Your task to perform on an android device: change the clock display to digital Image 0: 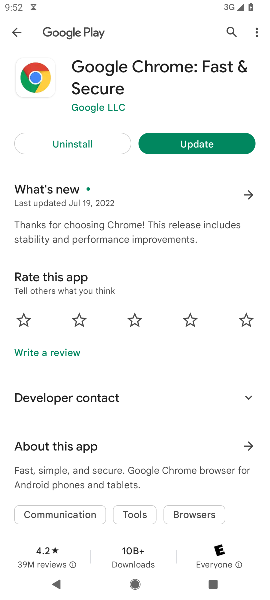
Step 0: press home button
Your task to perform on an android device: change the clock display to digital Image 1: 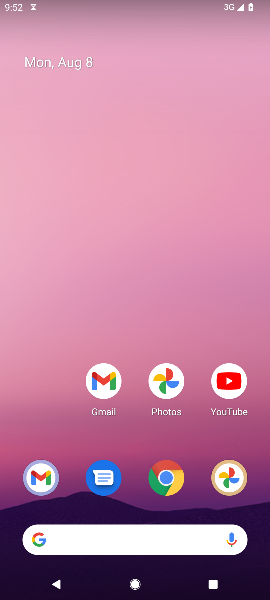
Step 1: drag from (136, 544) to (172, 280)
Your task to perform on an android device: change the clock display to digital Image 2: 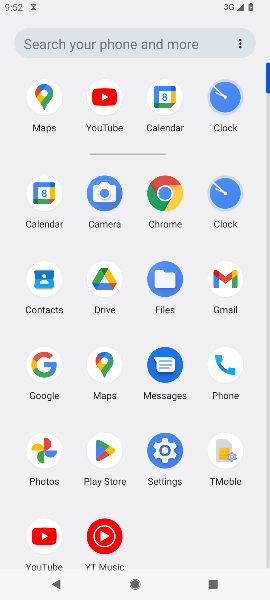
Step 2: click (221, 197)
Your task to perform on an android device: change the clock display to digital Image 3: 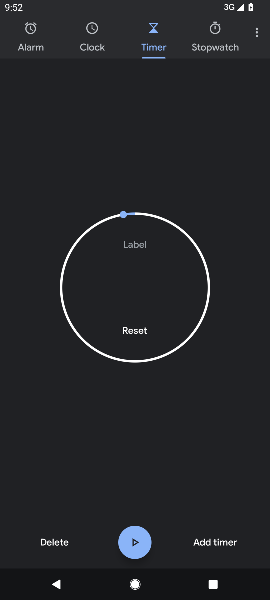
Step 3: click (257, 33)
Your task to perform on an android device: change the clock display to digital Image 4: 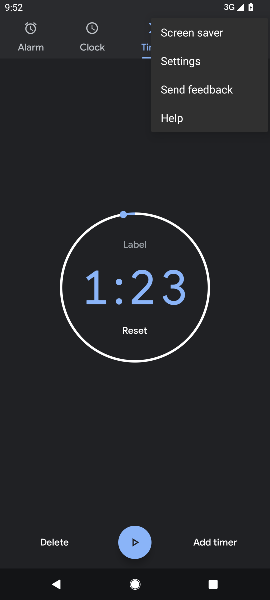
Step 4: click (189, 65)
Your task to perform on an android device: change the clock display to digital Image 5: 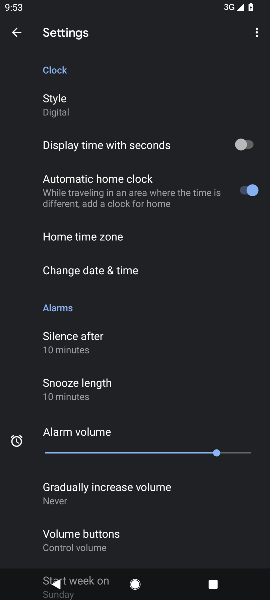
Step 5: task complete